Your task to perform on an android device: toggle airplane mode Image 0: 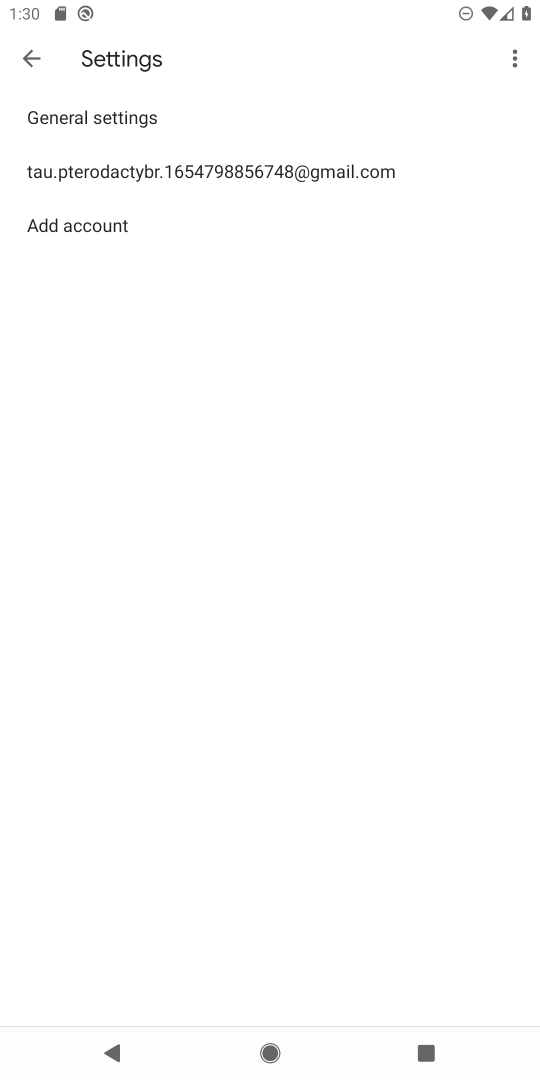
Step 0: drag from (353, 0) to (433, 986)
Your task to perform on an android device: toggle airplane mode Image 1: 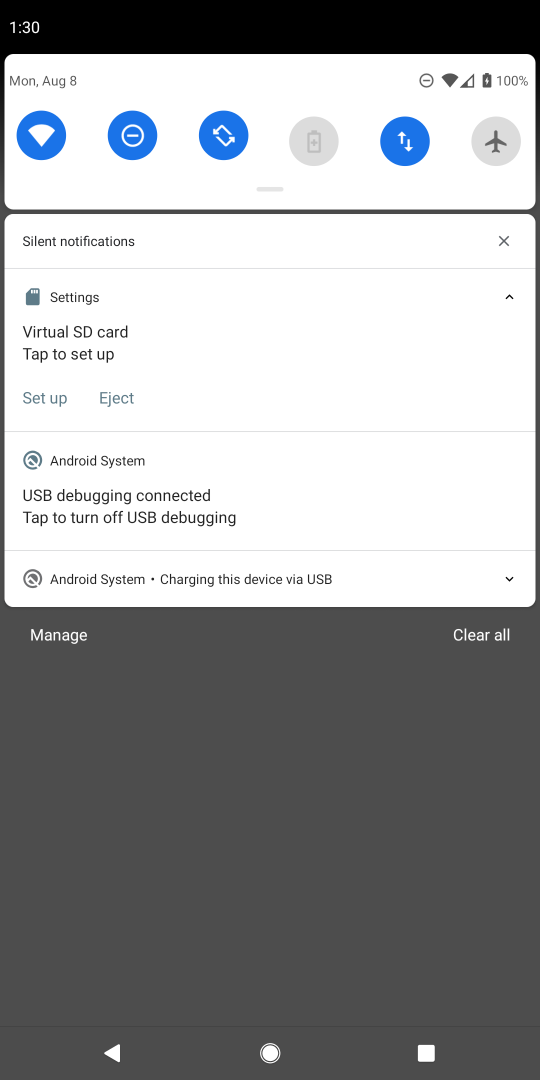
Step 1: click (493, 135)
Your task to perform on an android device: toggle airplane mode Image 2: 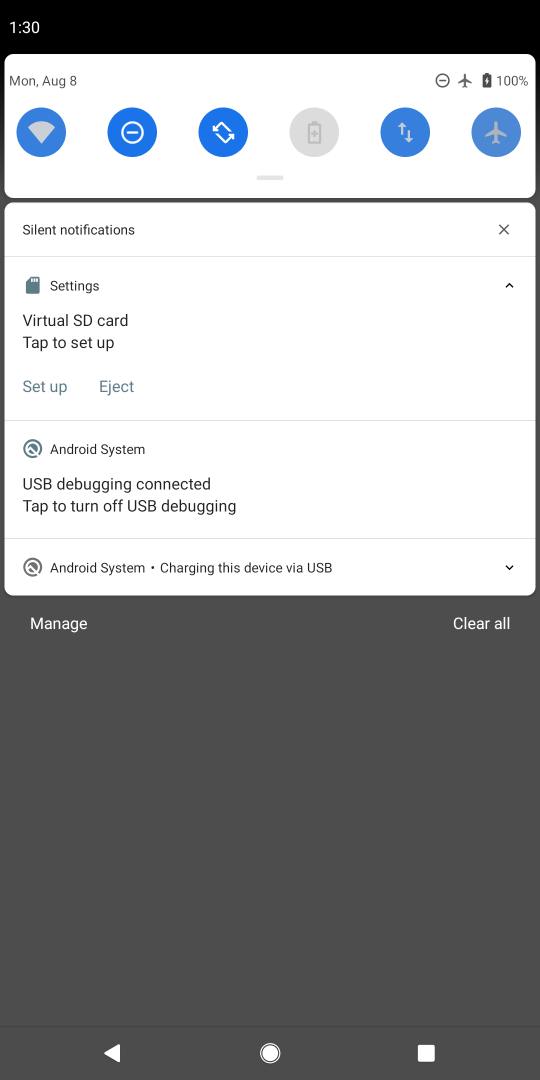
Step 2: click (485, 135)
Your task to perform on an android device: toggle airplane mode Image 3: 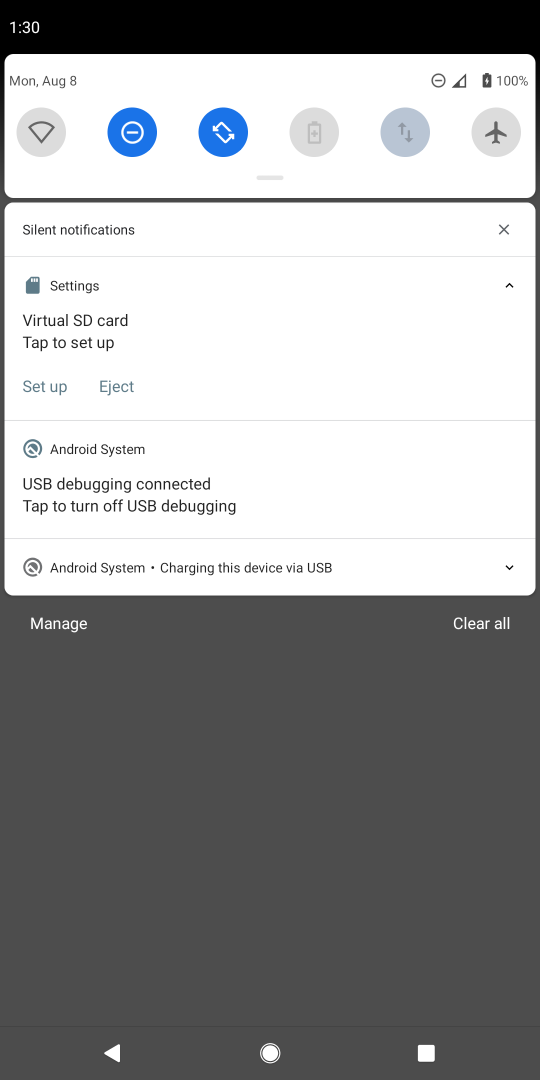
Step 3: task complete